Your task to perform on an android device: Open wifi settings Image 0: 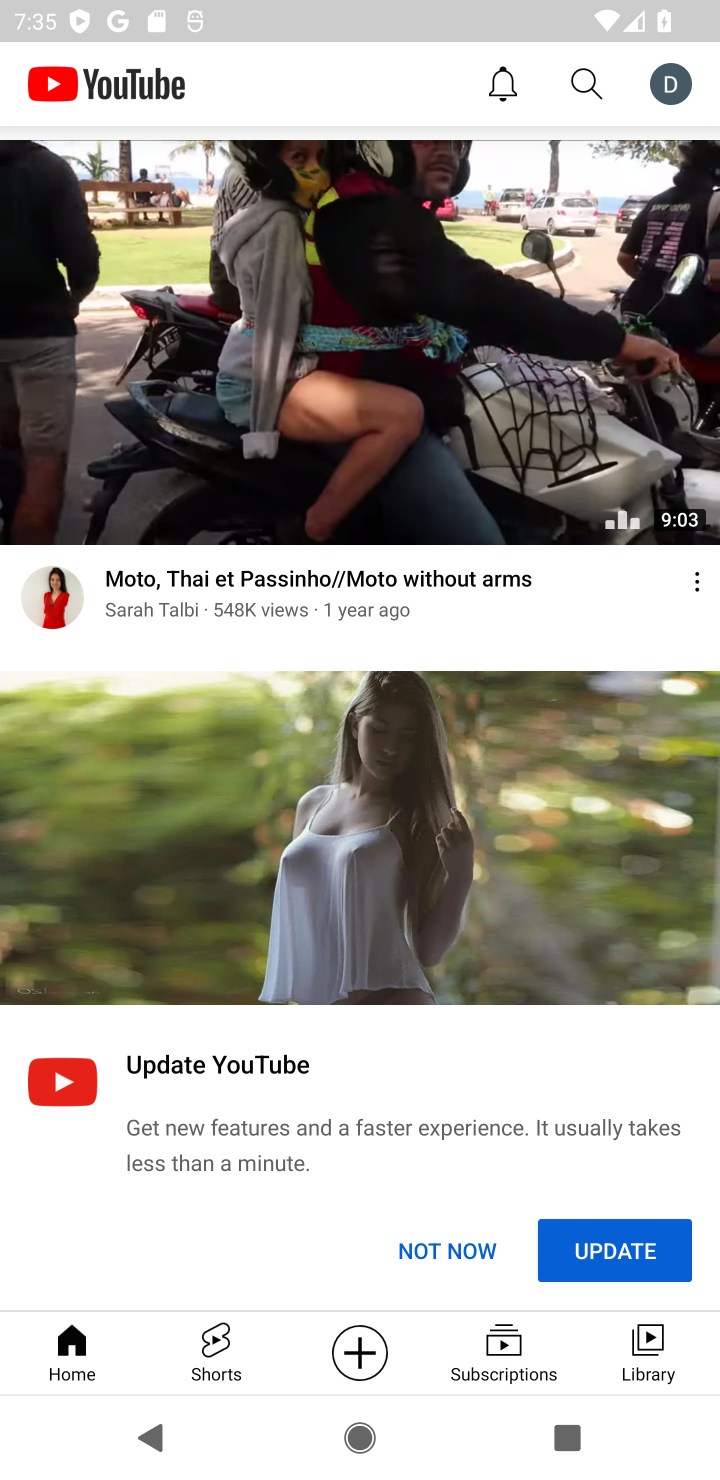
Step 0: drag from (311, 5) to (288, 87)
Your task to perform on an android device: Open wifi settings Image 1: 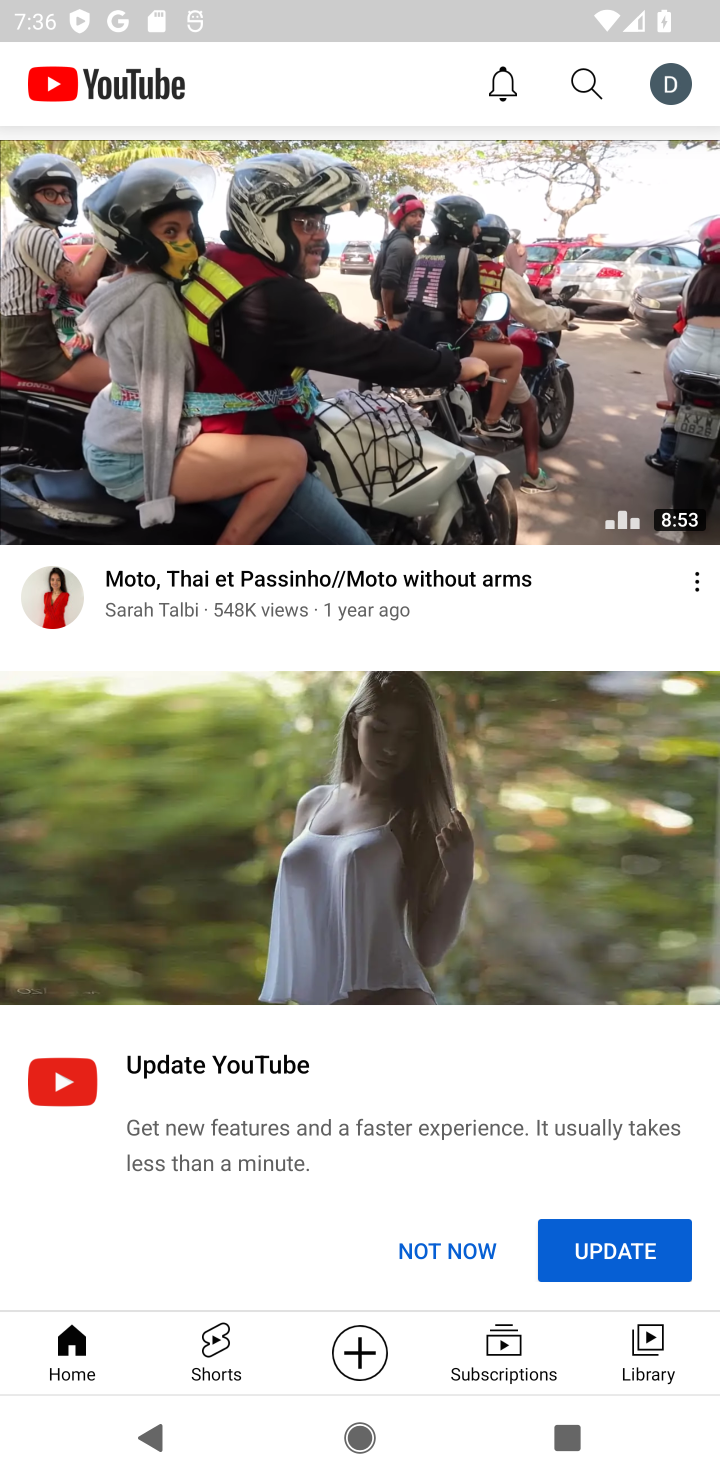
Step 1: click (434, 1250)
Your task to perform on an android device: Open wifi settings Image 2: 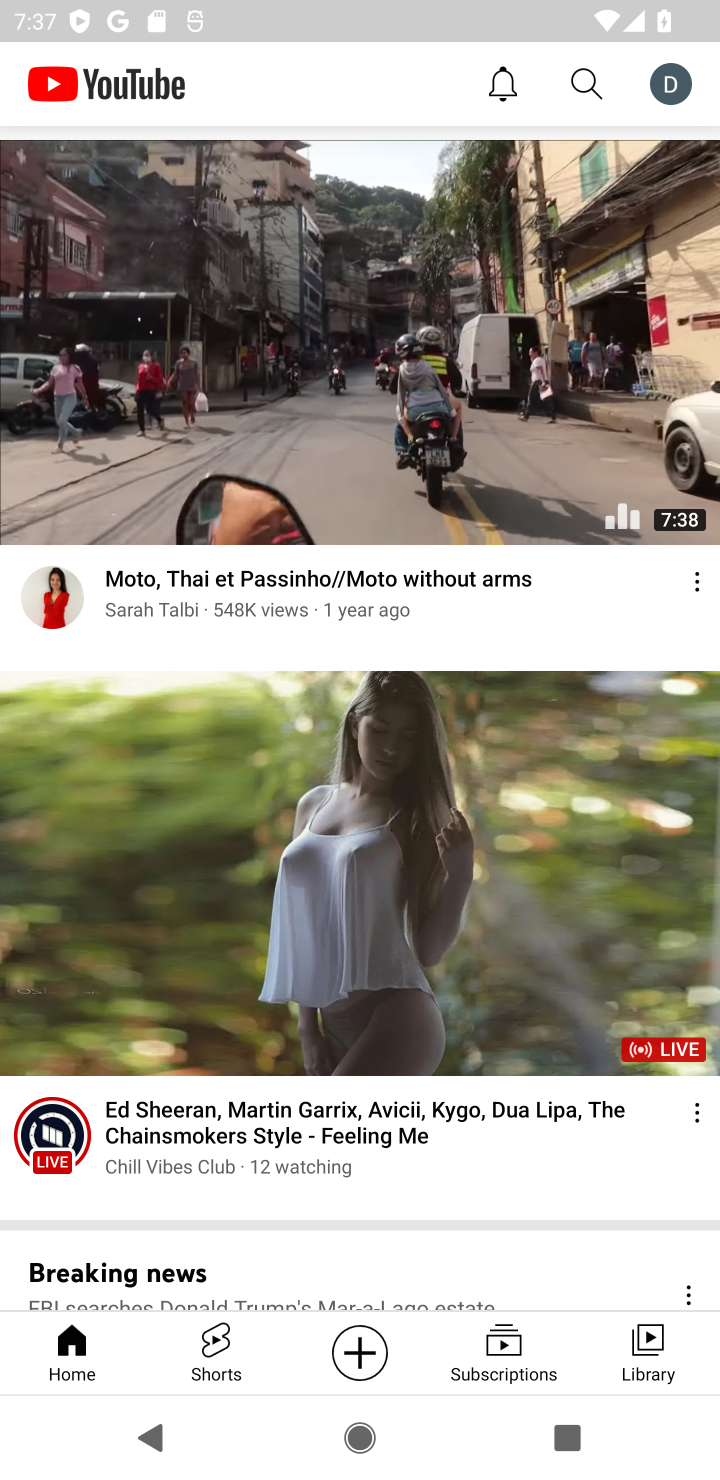
Step 2: drag from (649, 900) to (581, 452)
Your task to perform on an android device: Open wifi settings Image 3: 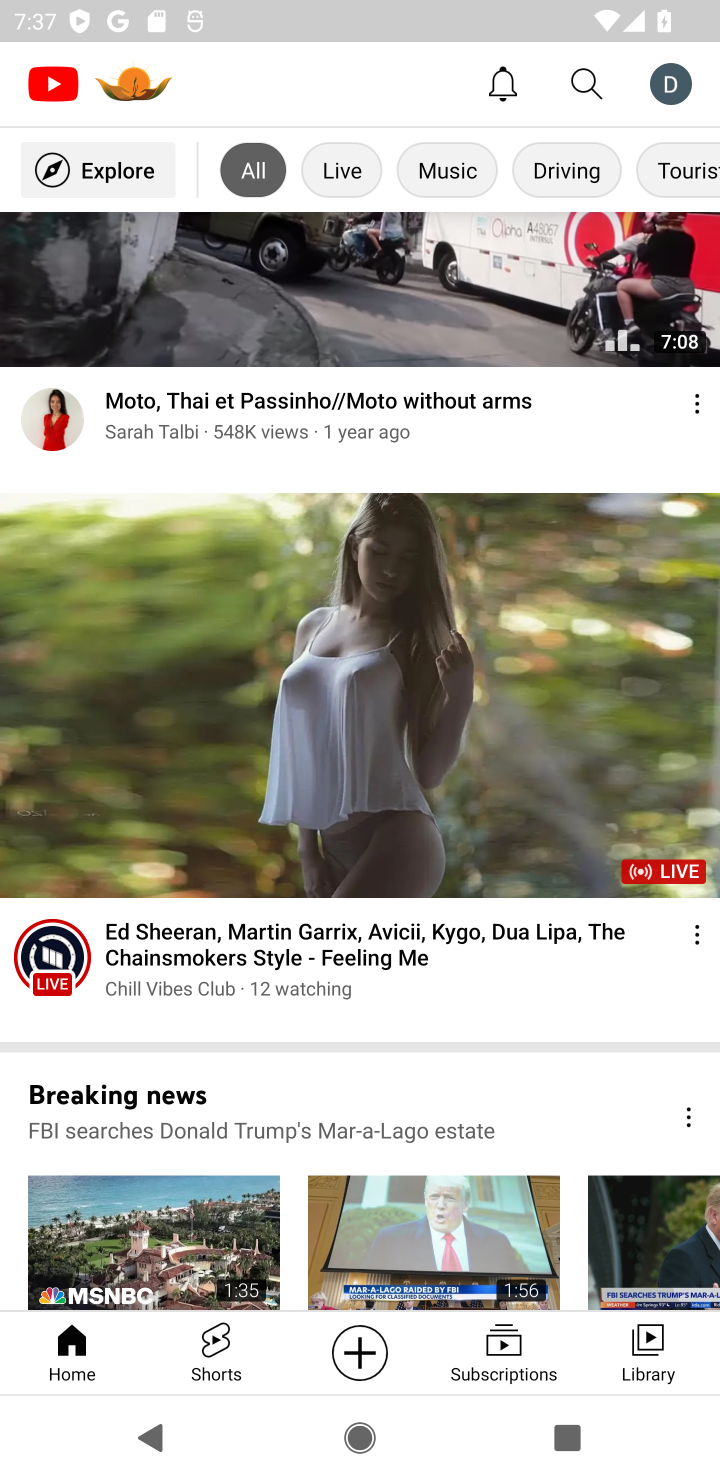
Step 3: drag from (565, 1103) to (573, 490)
Your task to perform on an android device: Open wifi settings Image 4: 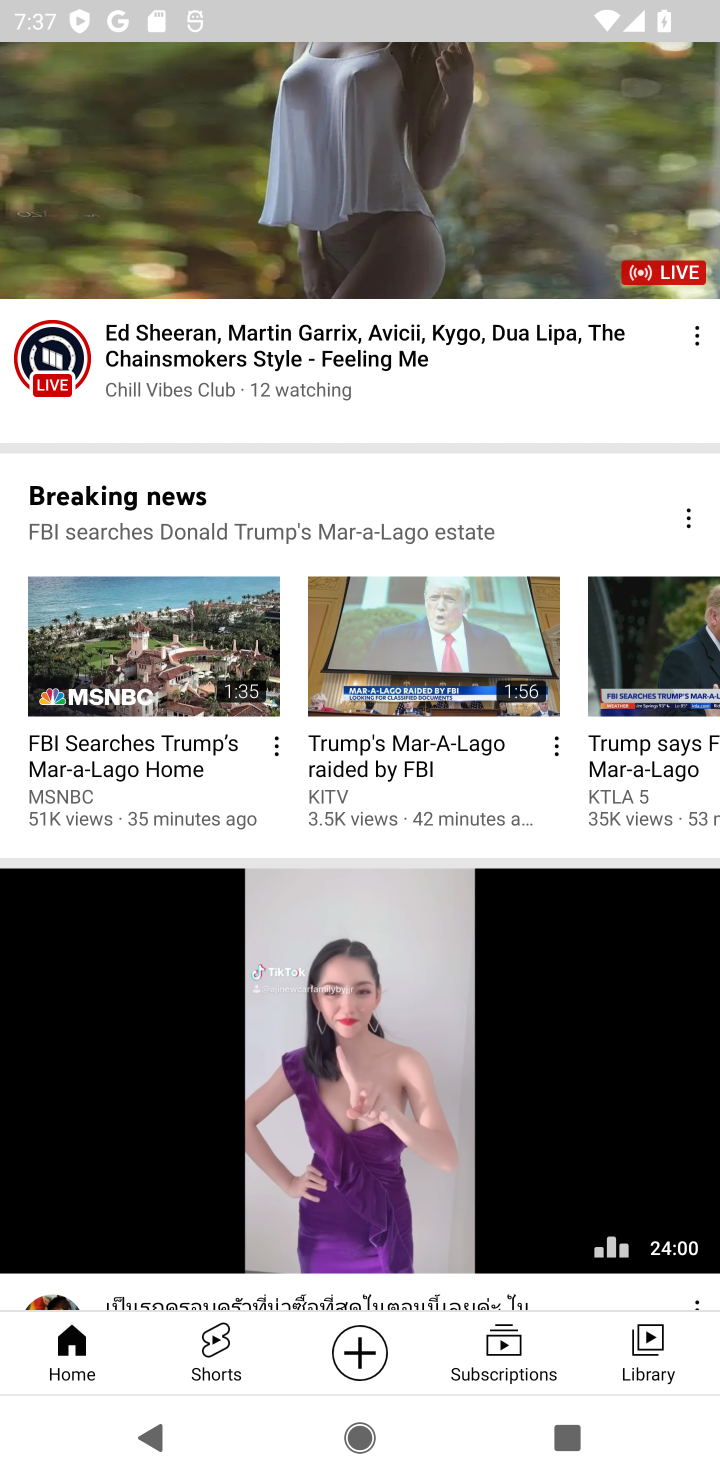
Step 4: drag from (508, 777) to (467, 365)
Your task to perform on an android device: Open wifi settings Image 5: 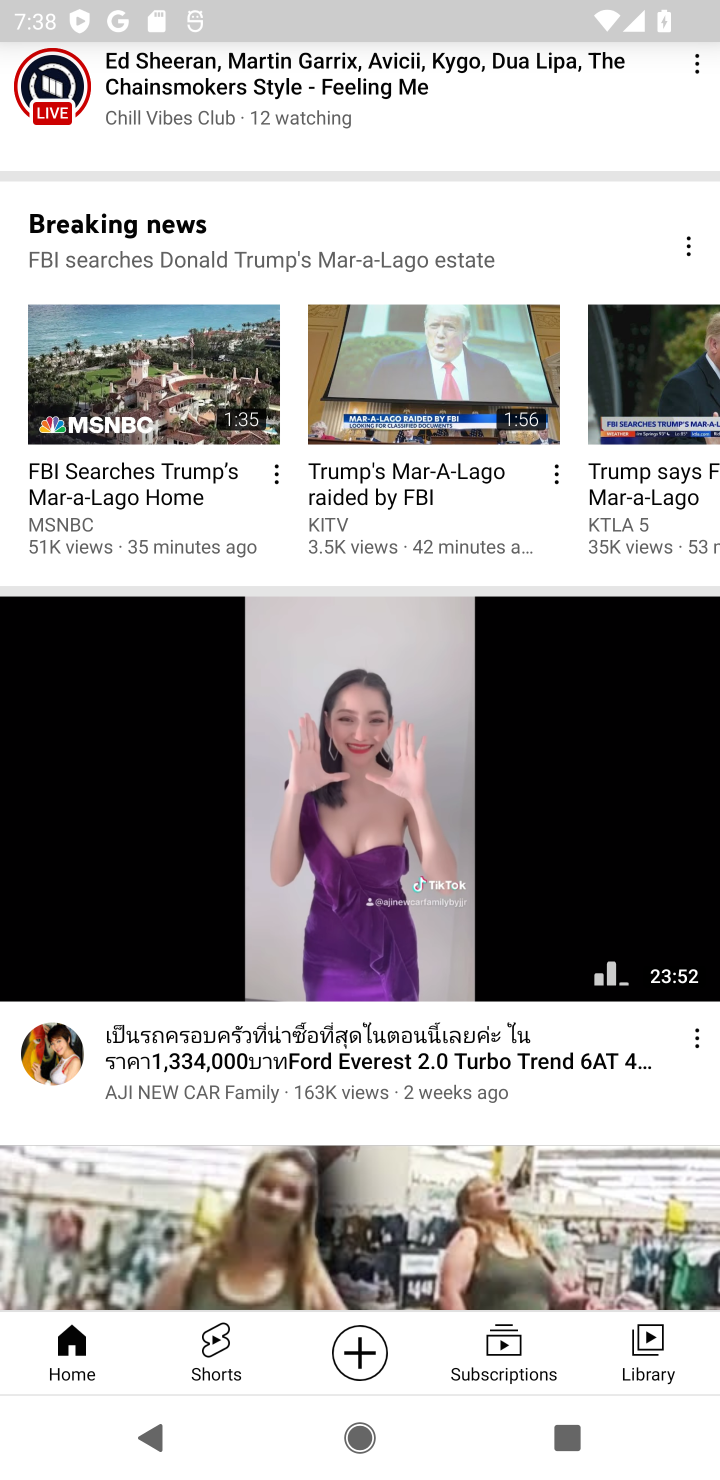
Step 5: drag from (434, 1091) to (455, 703)
Your task to perform on an android device: Open wifi settings Image 6: 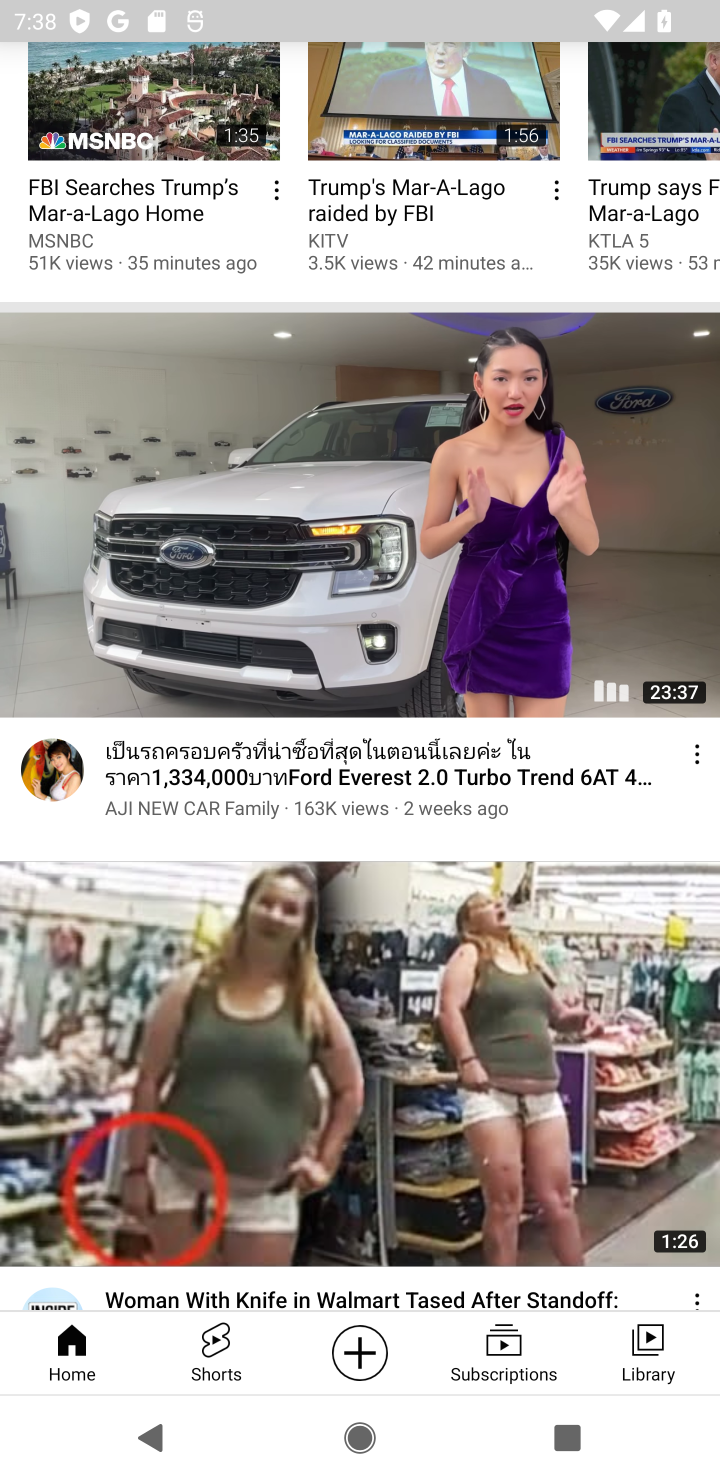
Step 6: drag from (467, 12) to (248, 1365)
Your task to perform on an android device: Open wifi settings Image 7: 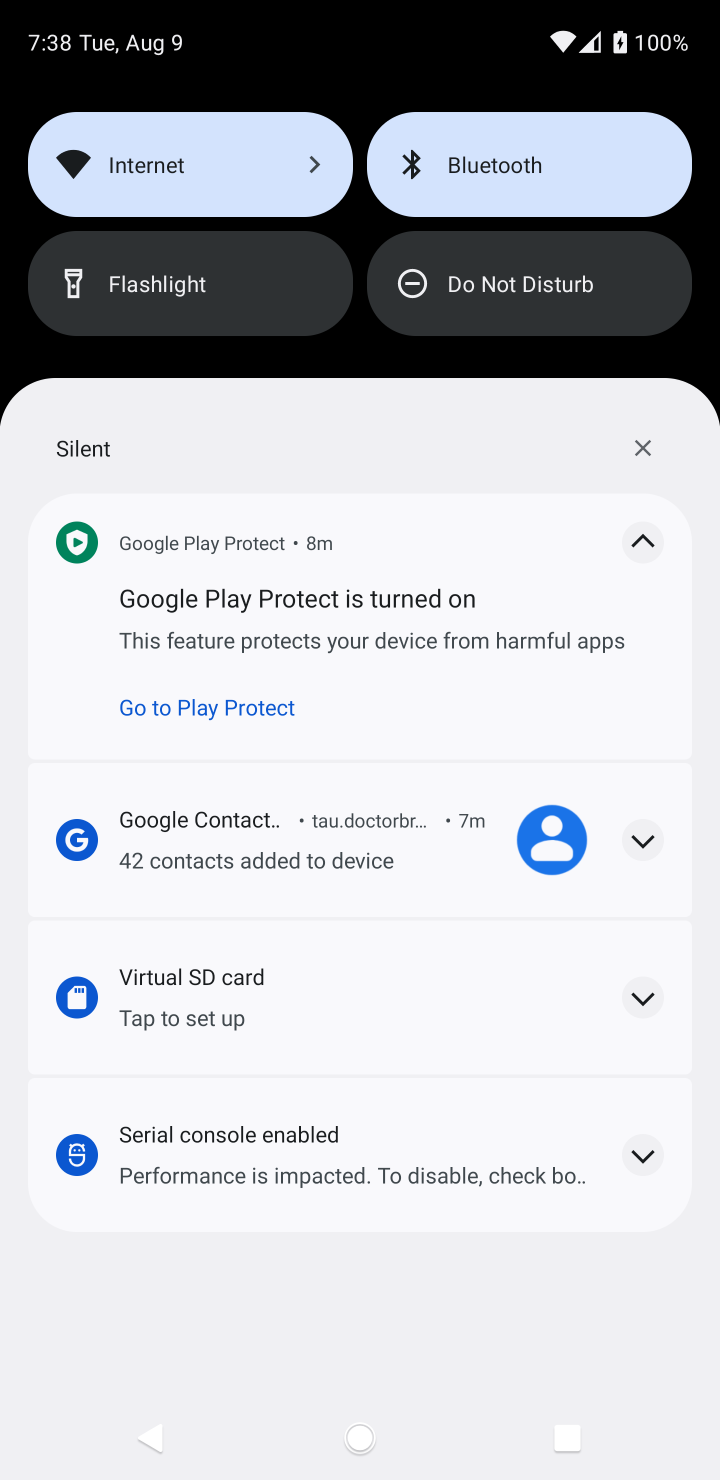
Step 7: click (300, 156)
Your task to perform on an android device: Open wifi settings Image 8: 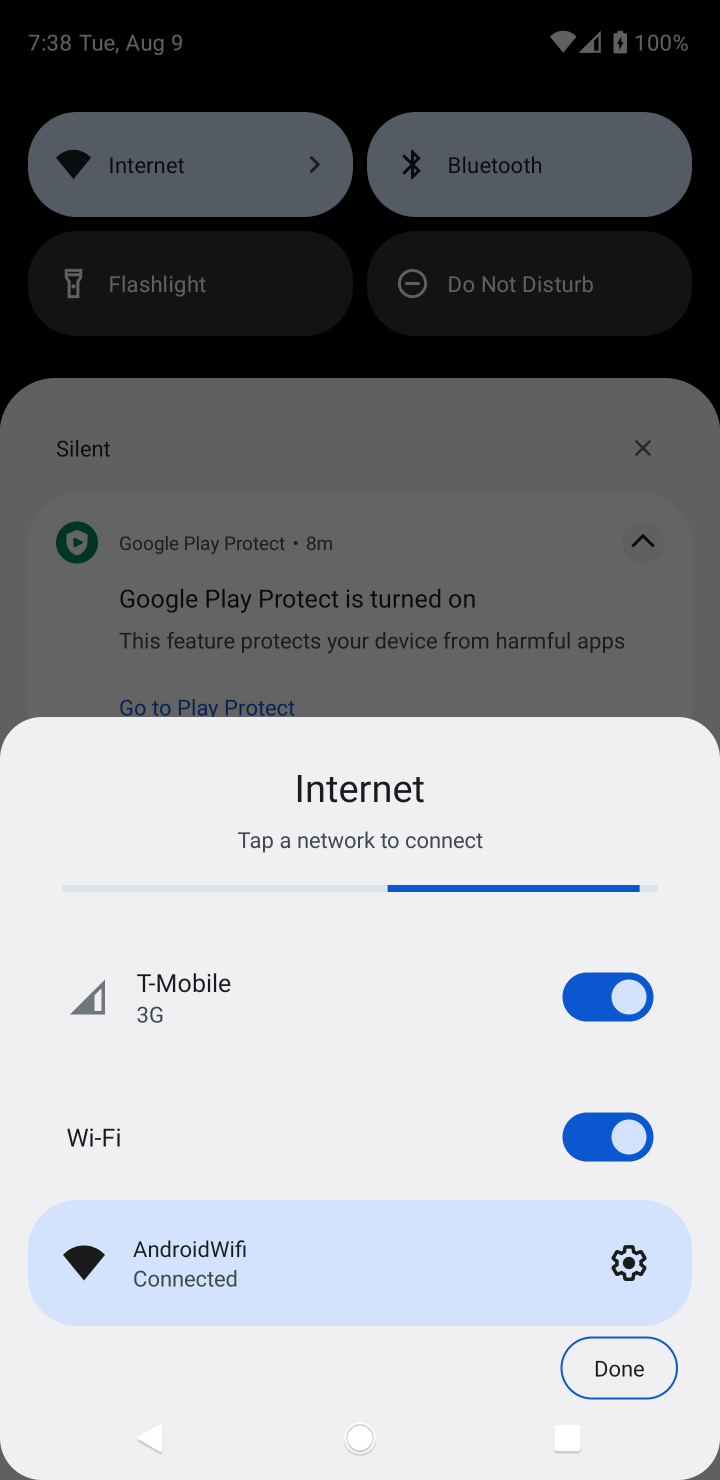
Step 8: click (633, 1267)
Your task to perform on an android device: Open wifi settings Image 9: 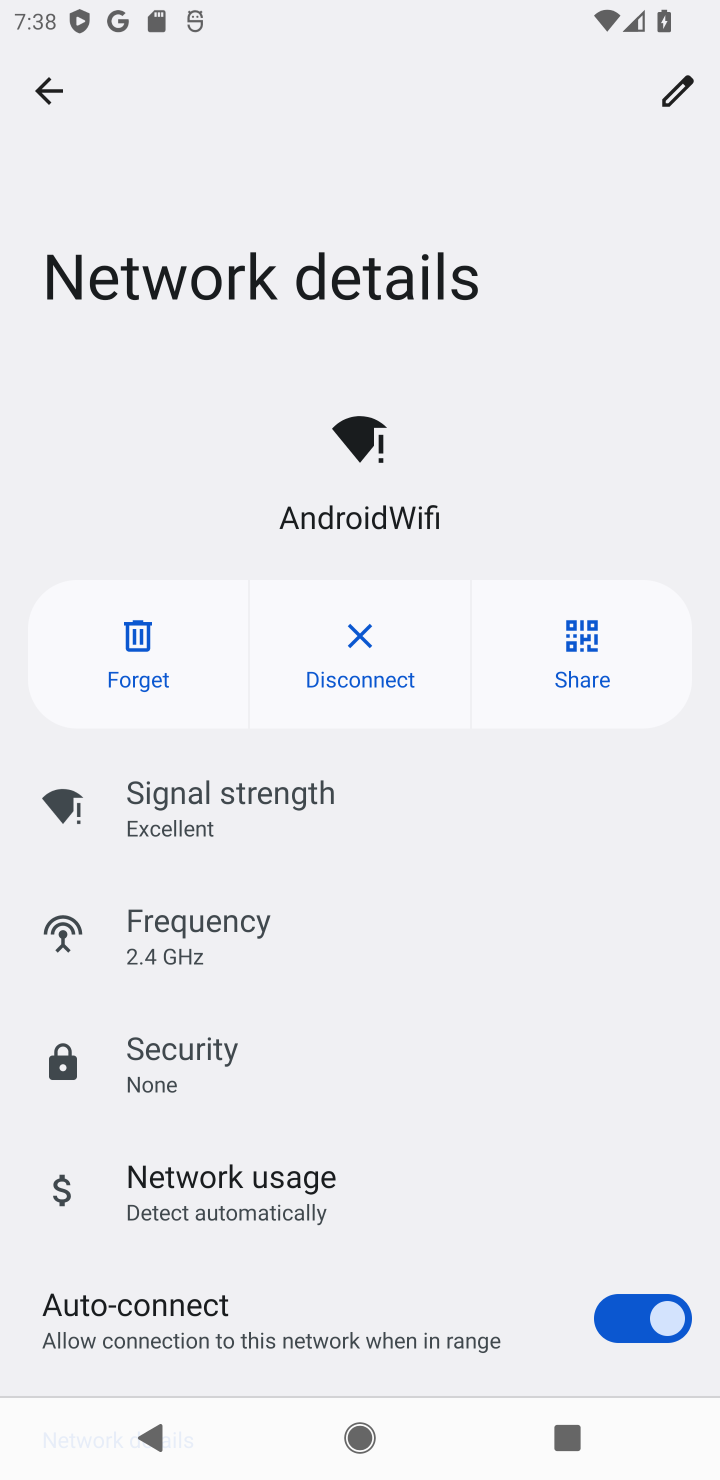
Step 9: task complete